Your task to perform on an android device: Open display settings Image 0: 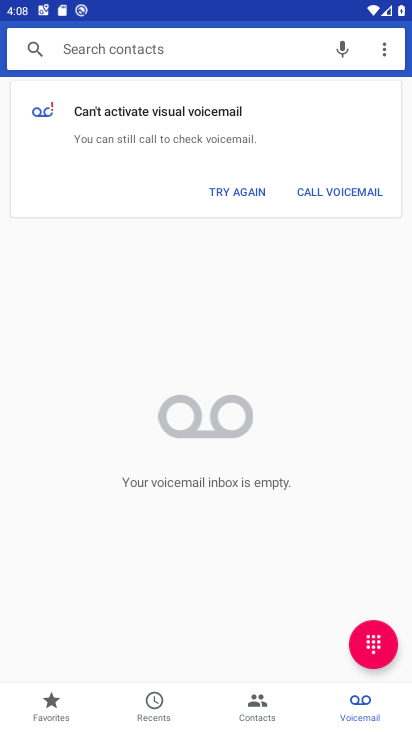
Step 0: press home button
Your task to perform on an android device: Open display settings Image 1: 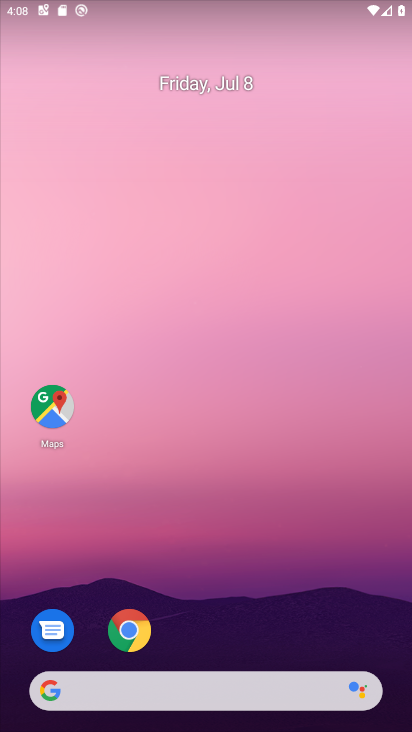
Step 1: drag from (373, 617) to (279, 153)
Your task to perform on an android device: Open display settings Image 2: 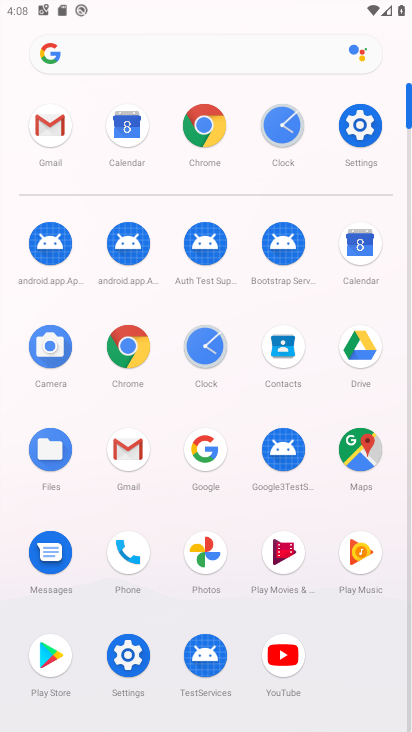
Step 2: click (370, 120)
Your task to perform on an android device: Open display settings Image 3: 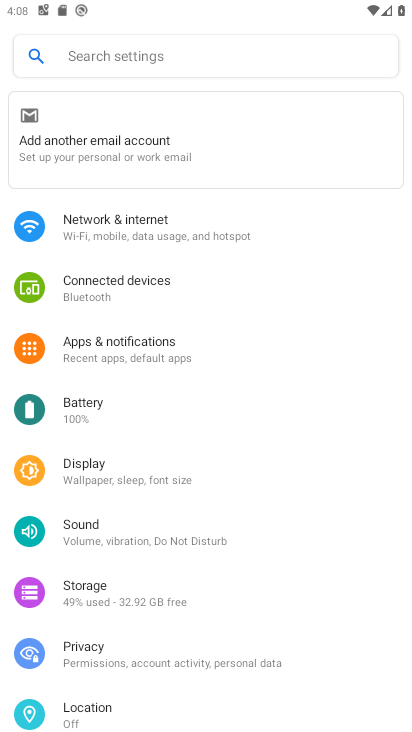
Step 3: click (98, 460)
Your task to perform on an android device: Open display settings Image 4: 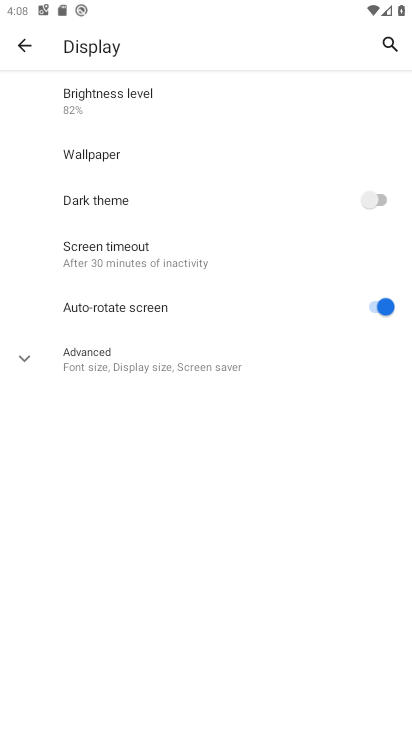
Step 4: task complete